Your task to perform on an android device: Open the Play Movies app and select the watchlist tab. Image 0: 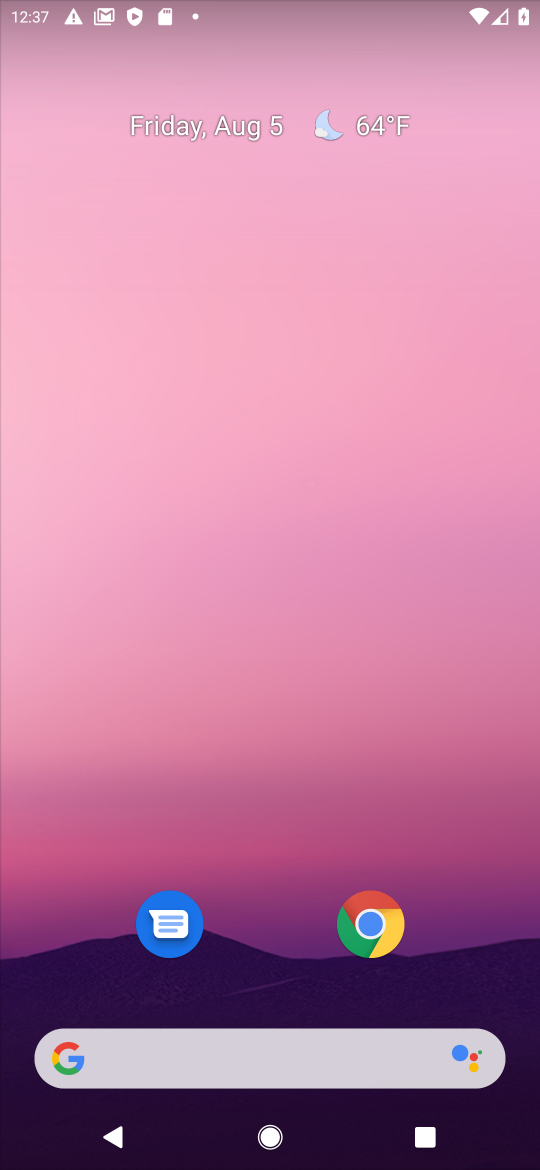
Step 0: press home button
Your task to perform on an android device: Open the Play Movies app and select the watchlist tab. Image 1: 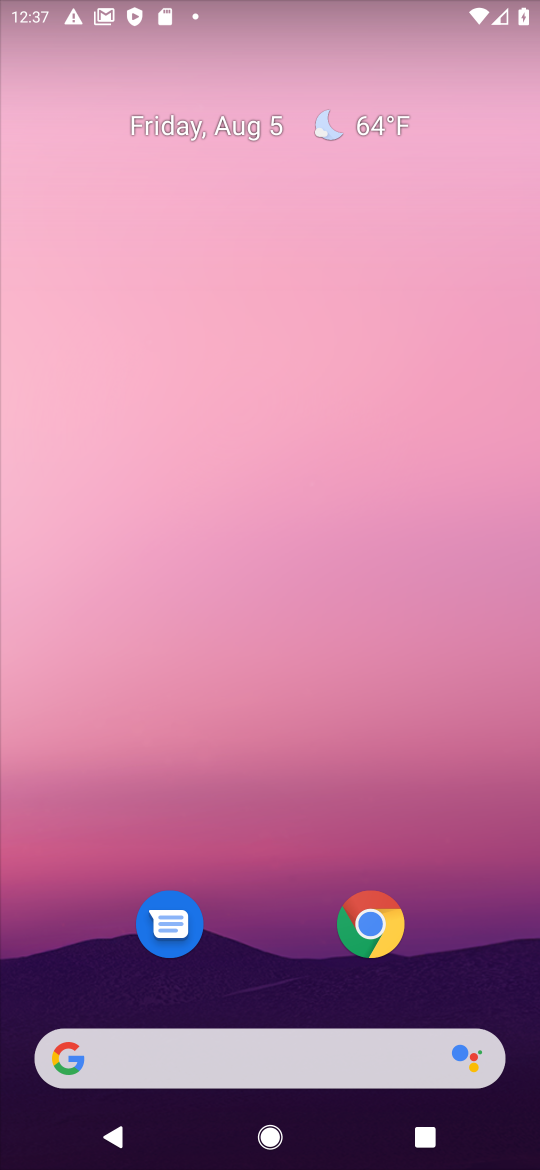
Step 1: drag from (299, 1007) to (324, 19)
Your task to perform on an android device: Open the Play Movies app and select the watchlist tab. Image 2: 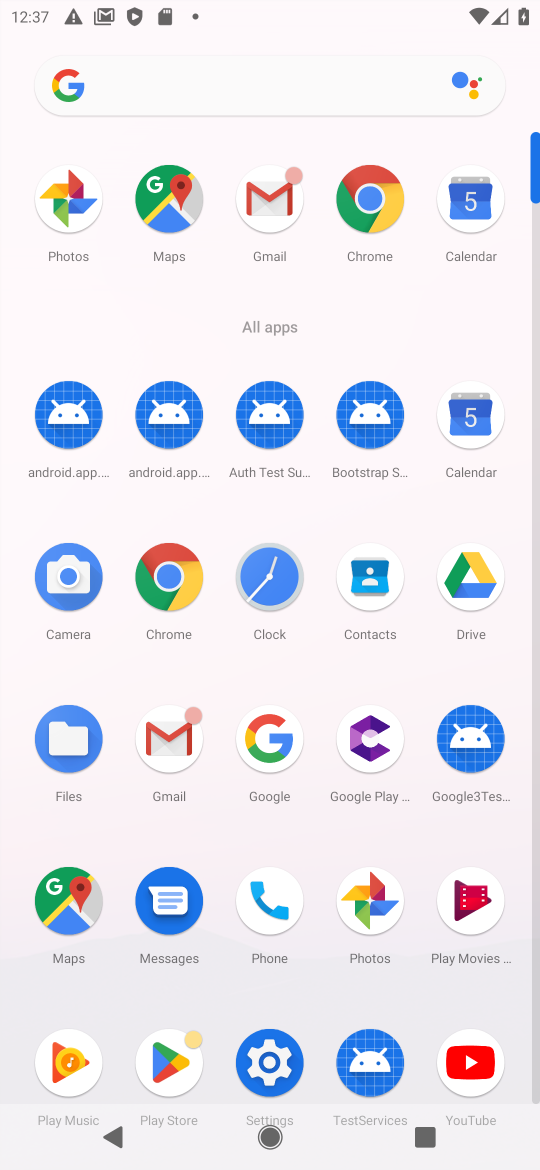
Step 2: click (481, 904)
Your task to perform on an android device: Open the Play Movies app and select the watchlist tab. Image 3: 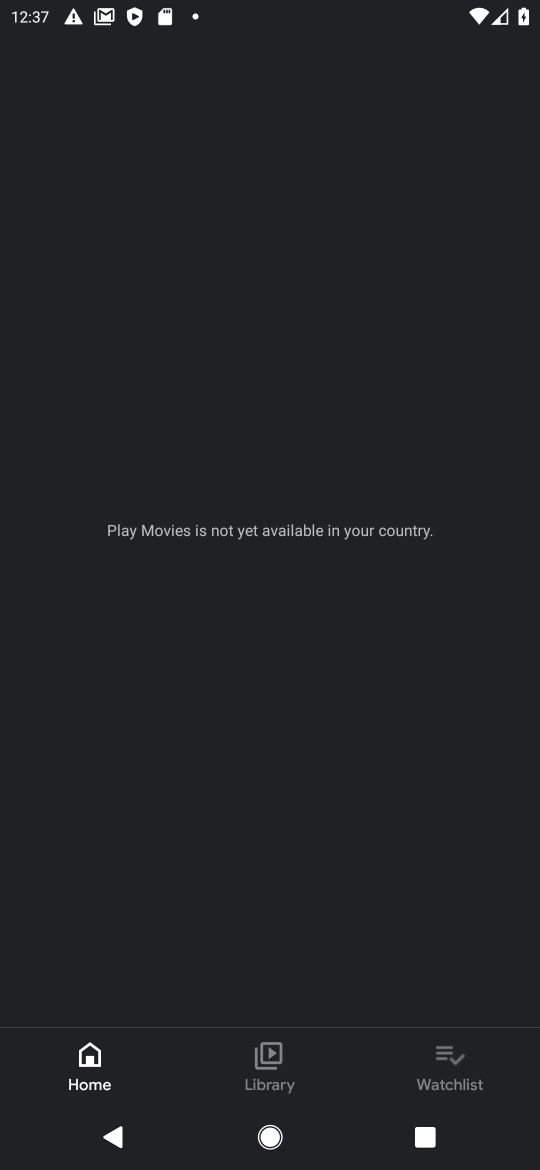
Step 3: click (437, 1048)
Your task to perform on an android device: Open the Play Movies app and select the watchlist tab. Image 4: 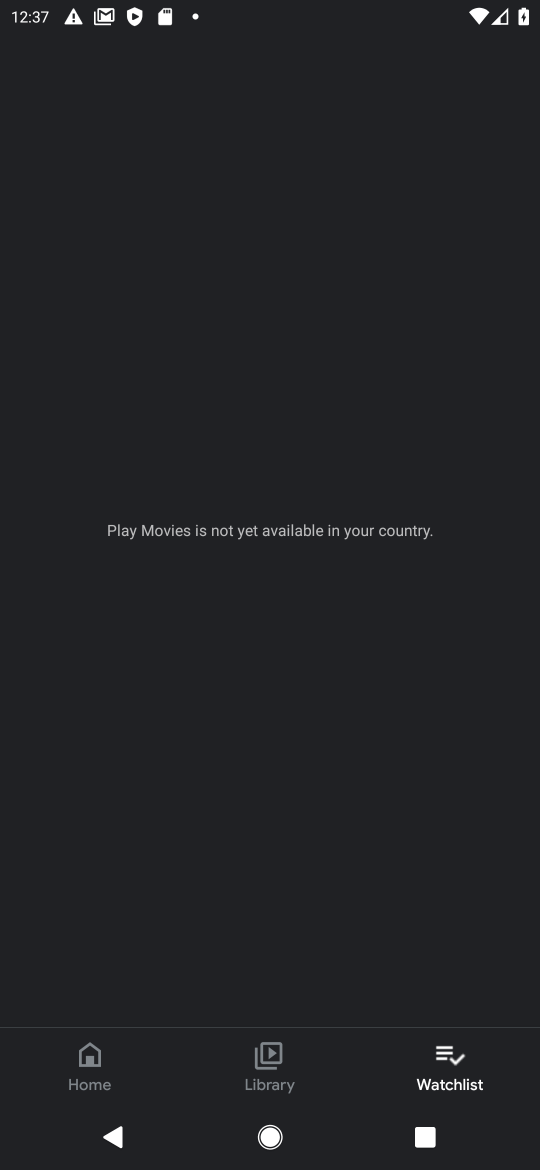
Step 4: task complete